Your task to perform on an android device: see creations saved in the google photos Image 0: 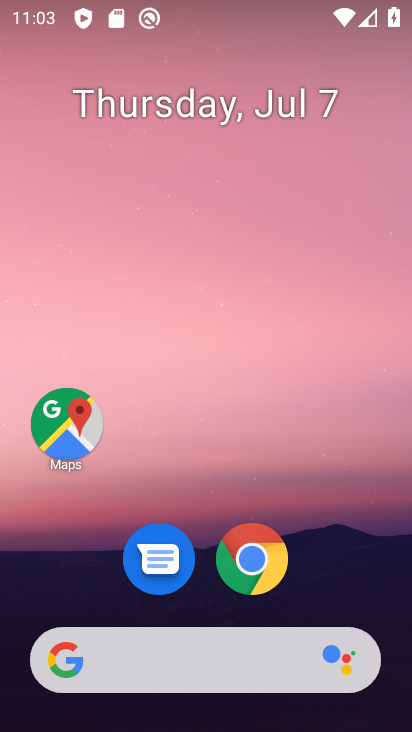
Step 0: drag from (365, 538) to (341, 95)
Your task to perform on an android device: see creations saved in the google photos Image 1: 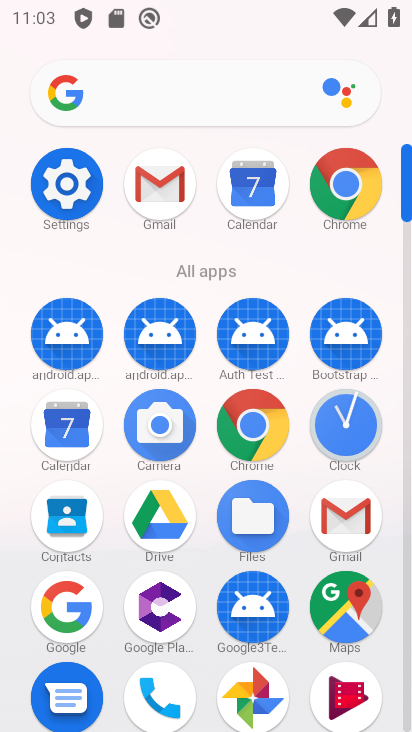
Step 1: drag from (392, 491) to (382, 298)
Your task to perform on an android device: see creations saved in the google photos Image 2: 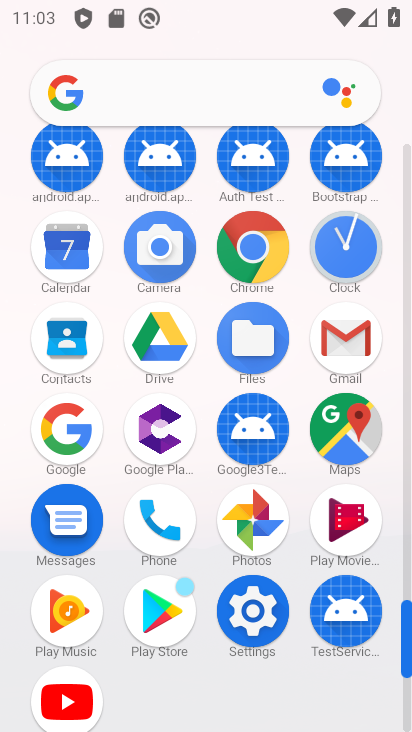
Step 2: click (258, 528)
Your task to perform on an android device: see creations saved in the google photos Image 3: 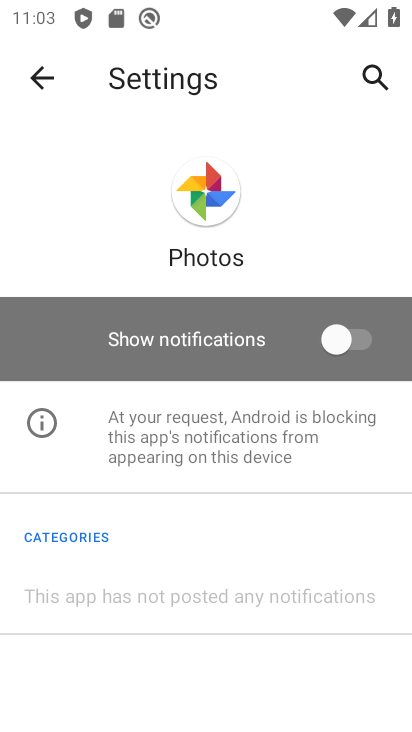
Step 3: press back button
Your task to perform on an android device: see creations saved in the google photos Image 4: 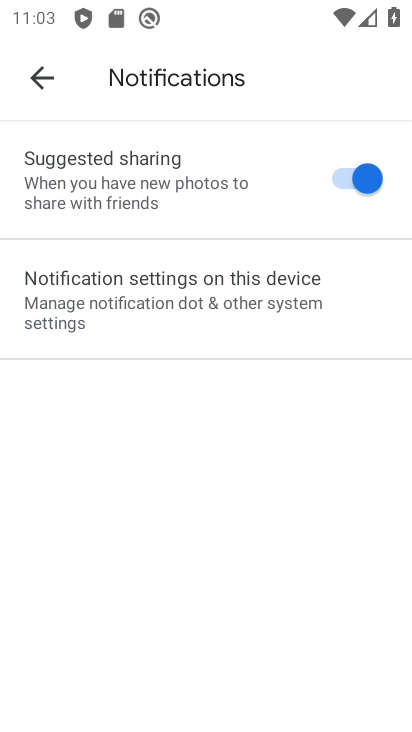
Step 4: press back button
Your task to perform on an android device: see creations saved in the google photos Image 5: 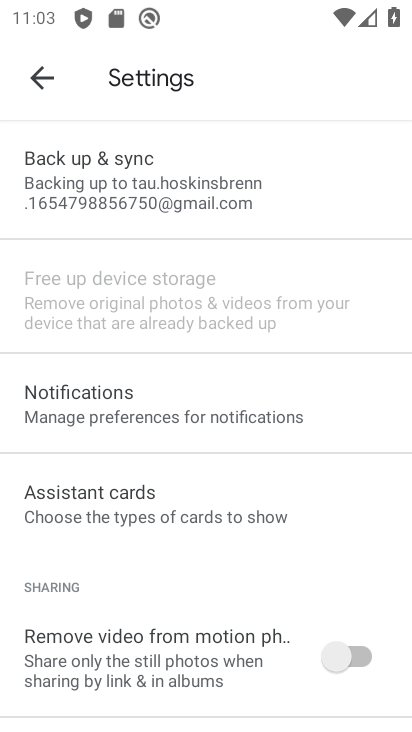
Step 5: press back button
Your task to perform on an android device: see creations saved in the google photos Image 6: 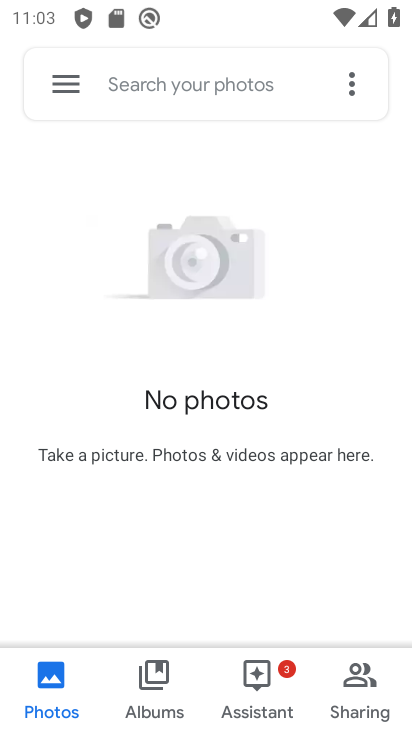
Step 6: click (240, 85)
Your task to perform on an android device: see creations saved in the google photos Image 7: 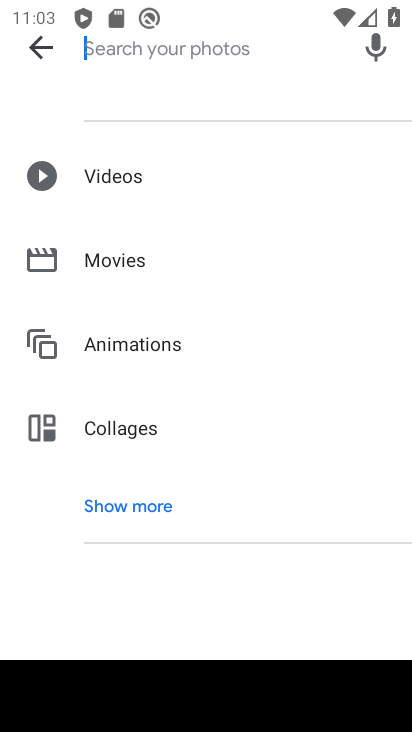
Step 7: drag from (299, 454) to (300, 189)
Your task to perform on an android device: see creations saved in the google photos Image 8: 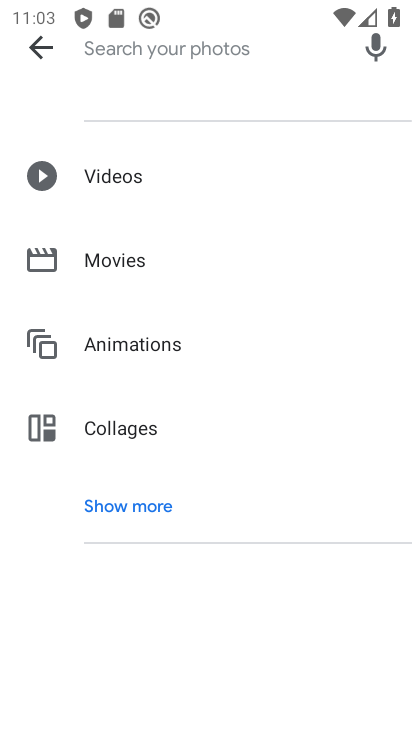
Step 8: click (143, 507)
Your task to perform on an android device: see creations saved in the google photos Image 9: 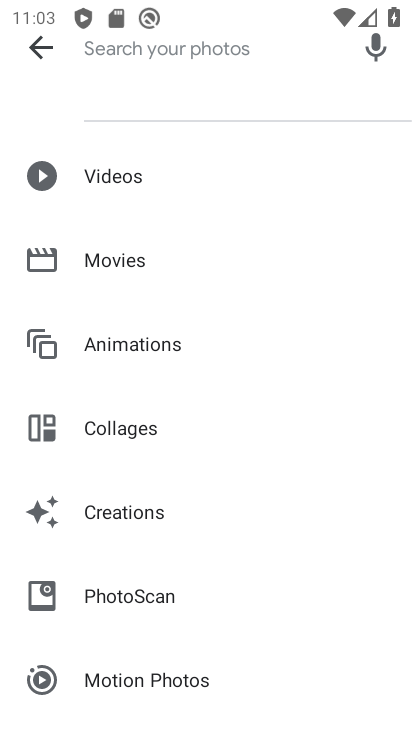
Step 9: drag from (353, 530) to (354, 340)
Your task to perform on an android device: see creations saved in the google photos Image 10: 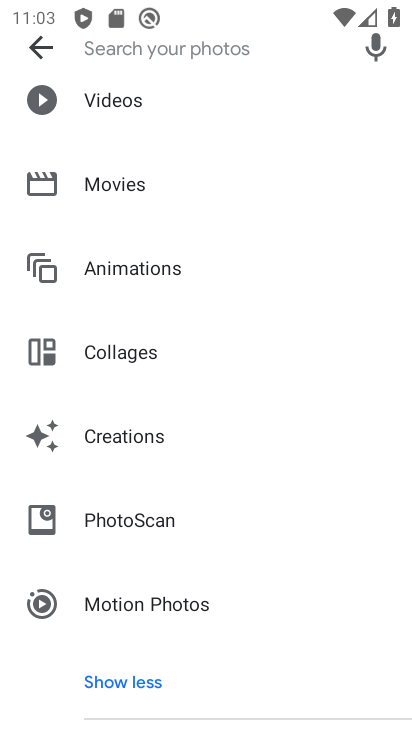
Step 10: drag from (370, 463) to (368, 265)
Your task to perform on an android device: see creations saved in the google photos Image 11: 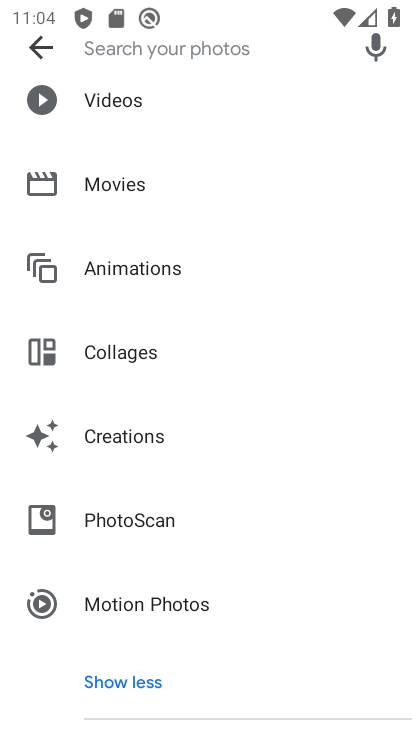
Step 11: drag from (326, 278) to (327, 406)
Your task to perform on an android device: see creations saved in the google photos Image 12: 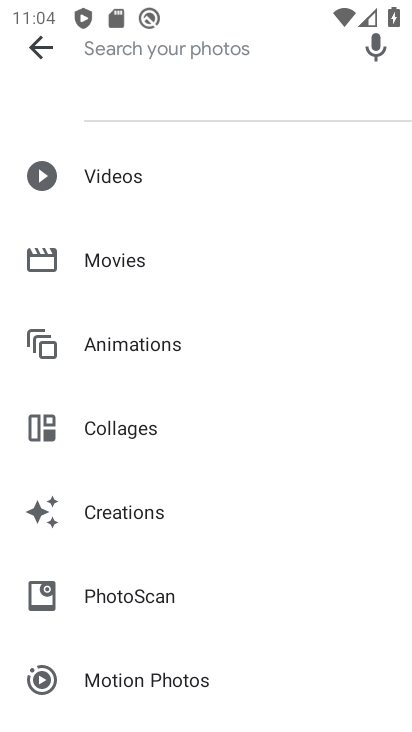
Step 12: drag from (328, 499) to (327, 207)
Your task to perform on an android device: see creations saved in the google photos Image 13: 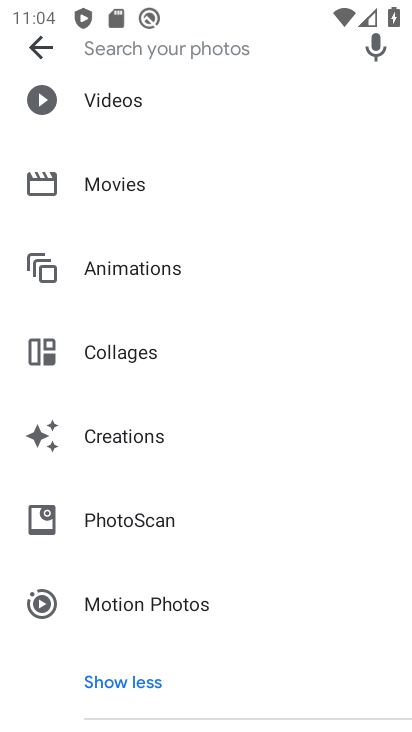
Step 13: click (152, 436)
Your task to perform on an android device: see creations saved in the google photos Image 14: 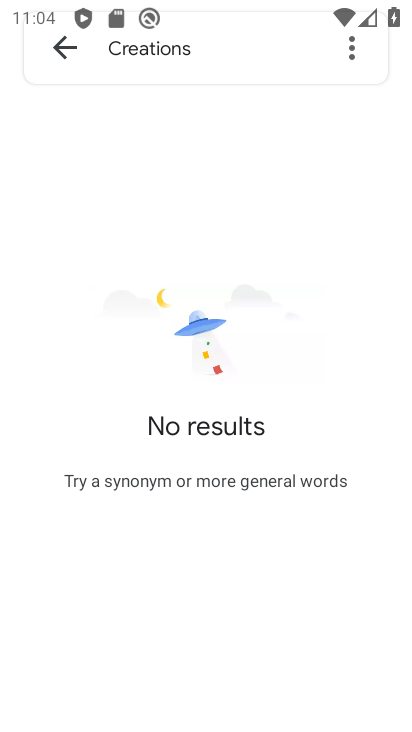
Step 14: task complete